Your task to perform on an android device: create a new album in the google photos Image 0: 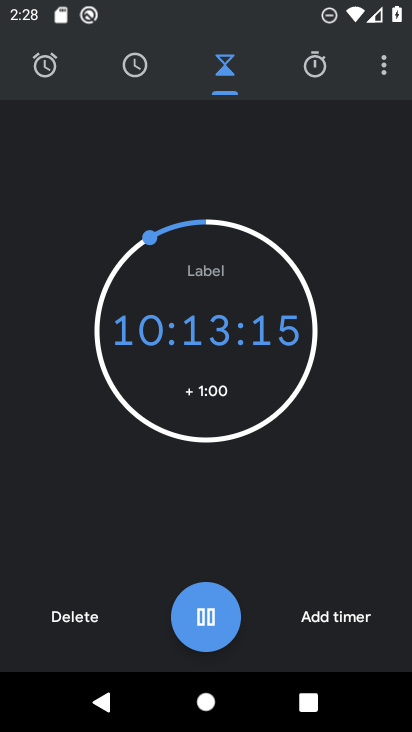
Step 0: press home button
Your task to perform on an android device: create a new album in the google photos Image 1: 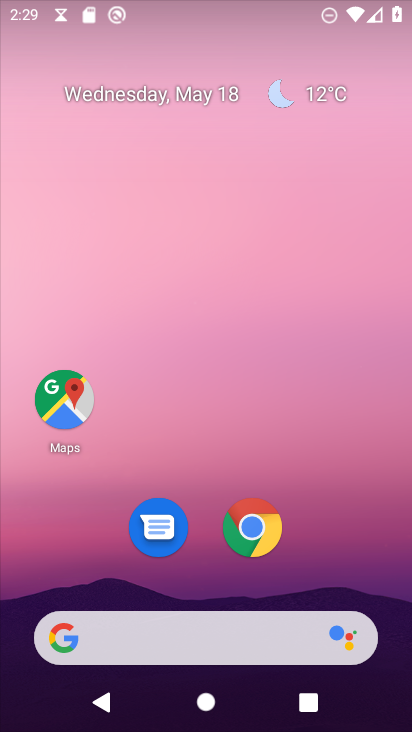
Step 1: drag from (335, 567) to (201, 29)
Your task to perform on an android device: create a new album in the google photos Image 2: 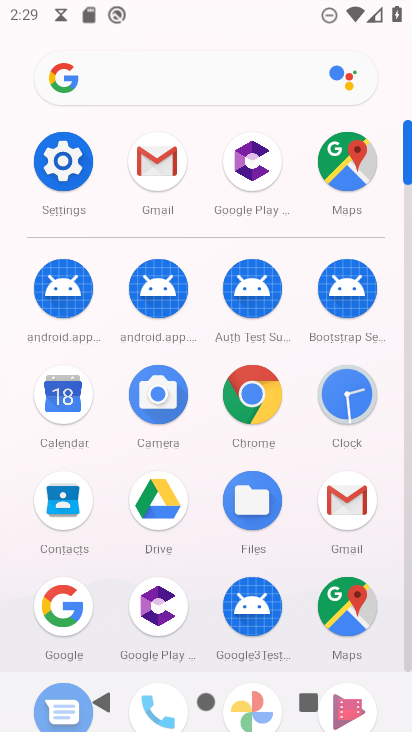
Step 2: drag from (306, 593) to (249, 83)
Your task to perform on an android device: create a new album in the google photos Image 3: 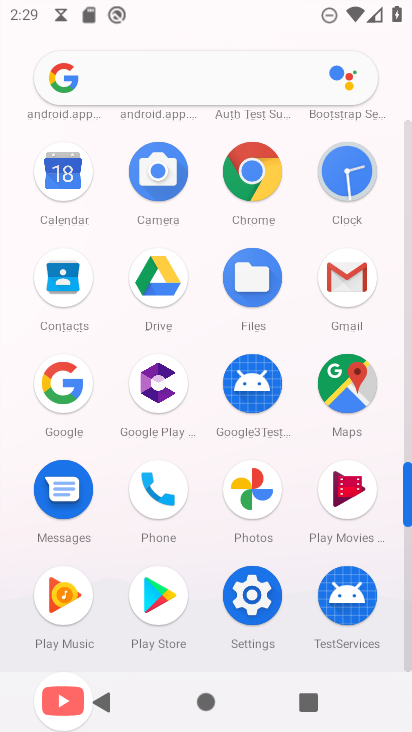
Step 3: click (252, 499)
Your task to perform on an android device: create a new album in the google photos Image 4: 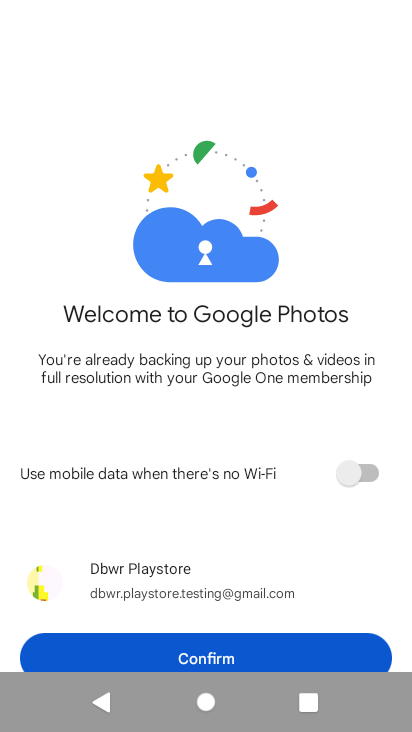
Step 4: click (229, 659)
Your task to perform on an android device: create a new album in the google photos Image 5: 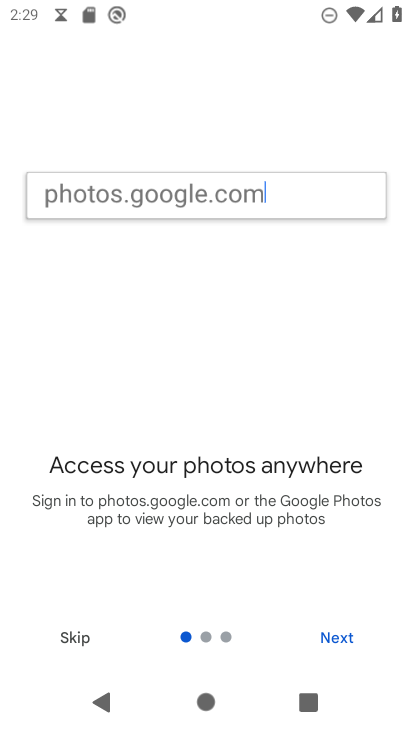
Step 5: click (336, 636)
Your task to perform on an android device: create a new album in the google photos Image 6: 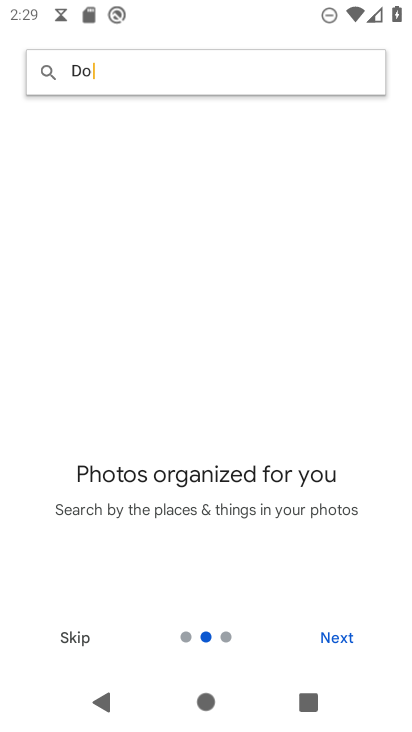
Step 6: click (336, 636)
Your task to perform on an android device: create a new album in the google photos Image 7: 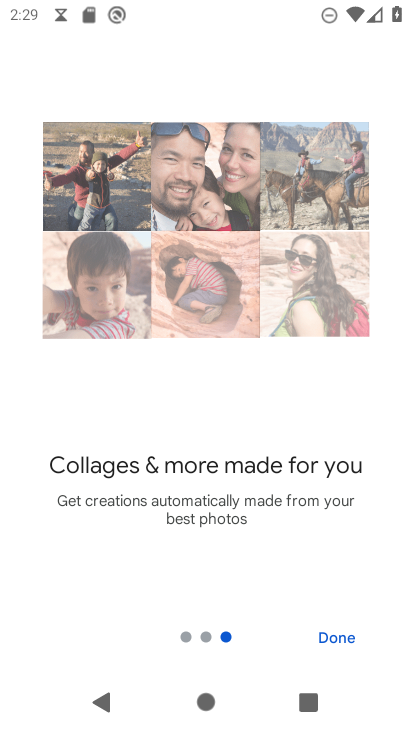
Step 7: click (336, 636)
Your task to perform on an android device: create a new album in the google photos Image 8: 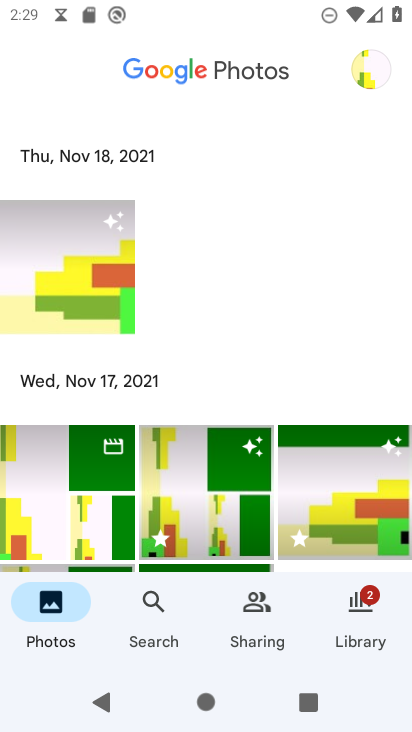
Step 8: click (353, 618)
Your task to perform on an android device: create a new album in the google photos Image 9: 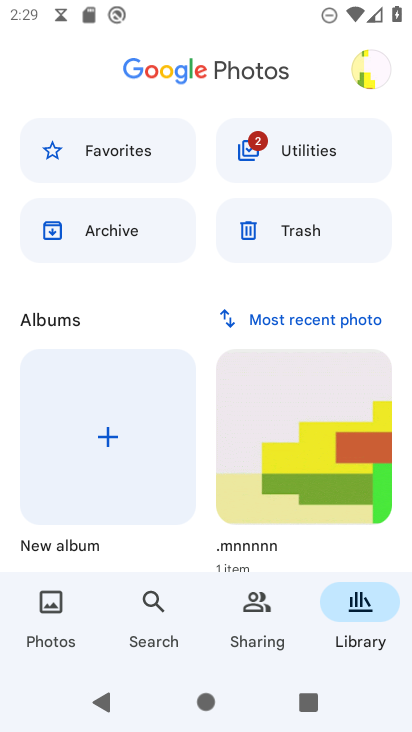
Step 9: click (94, 439)
Your task to perform on an android device: create a new album in the google photos Image 10: 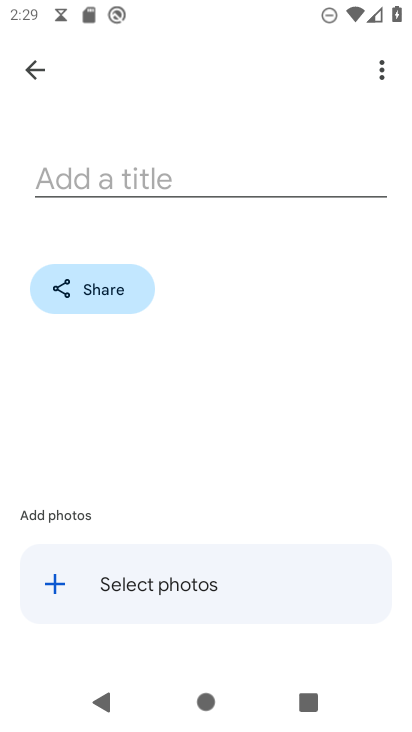
Step 10: click (212, 167)
Your task to perform on an android device: create a new album in the google photos Image 11: 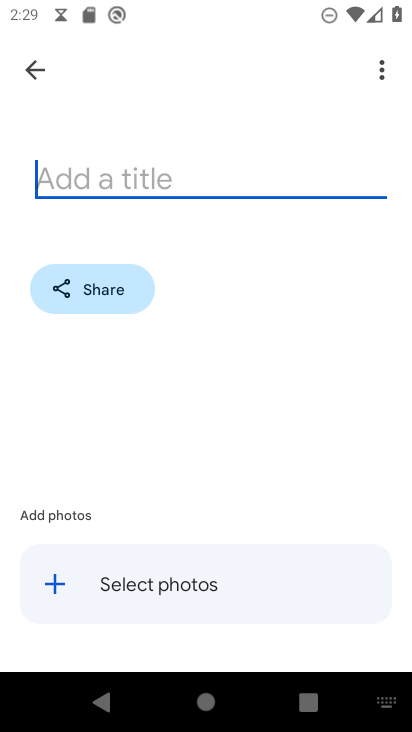
Step 11: type "ggsfgs"
Your task to perform on an android device: create a new album in the google photos Image 12: 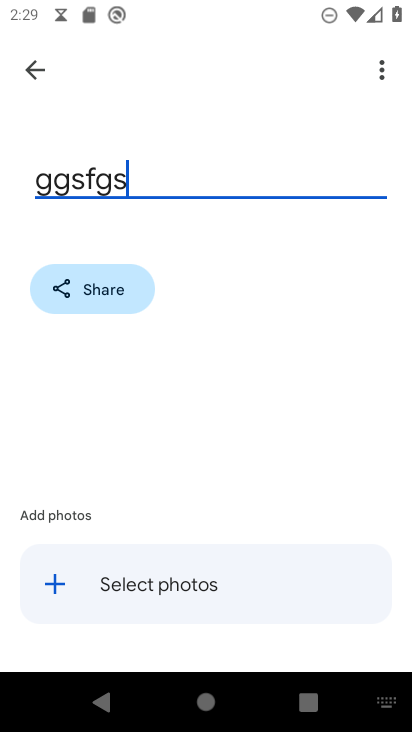
Step 12: type ""
Your task to perform on an android device: create a new album in the google photos Image 13: 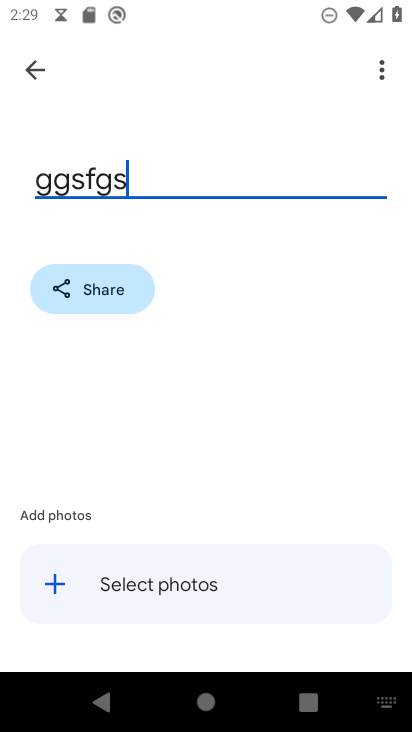
Step 13: click (102, 583)
Your task to perform on an android device: create a new album in the google photos Image 14: 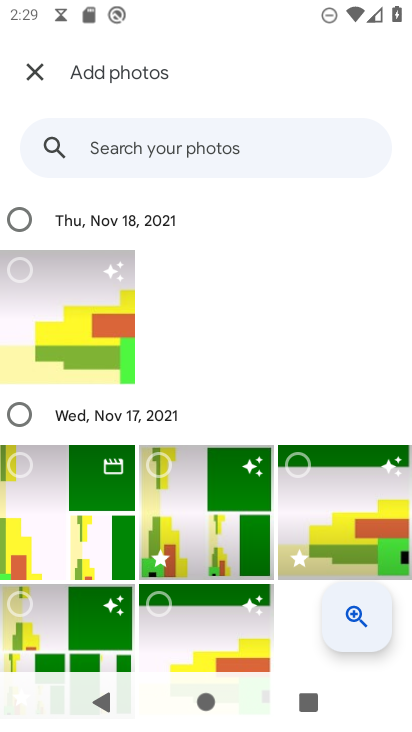
Step 14: click (95, 327)
Your task to perform on an android device: create a new album in the google photos Image 15: 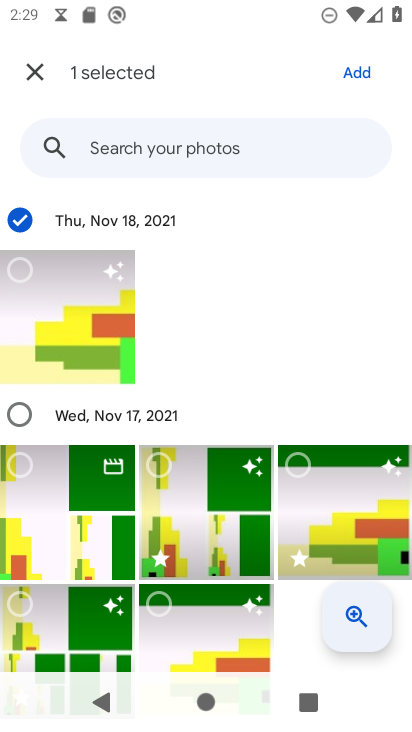
Step 15: click (211, 540)
Your task to perform on an android device: create a new album in the google photos Image 16: 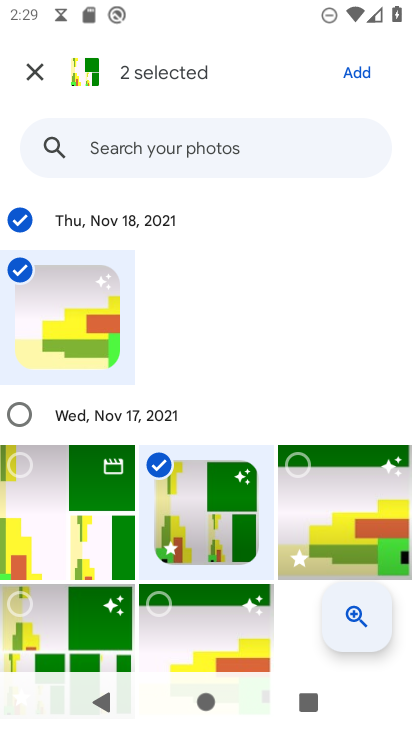
Step 16: click (347, 78)
Your task to perform on an android device: create a new album in the google photos Image 17: 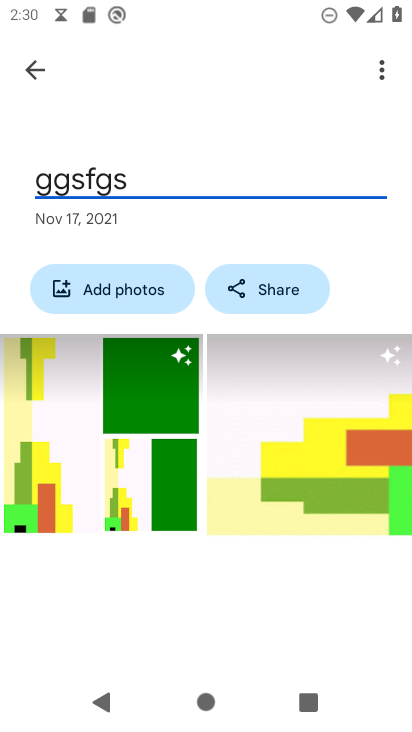
Step 17: task complete